Your task to perform on an android device: uninstall "Google Calendar" Image 0: 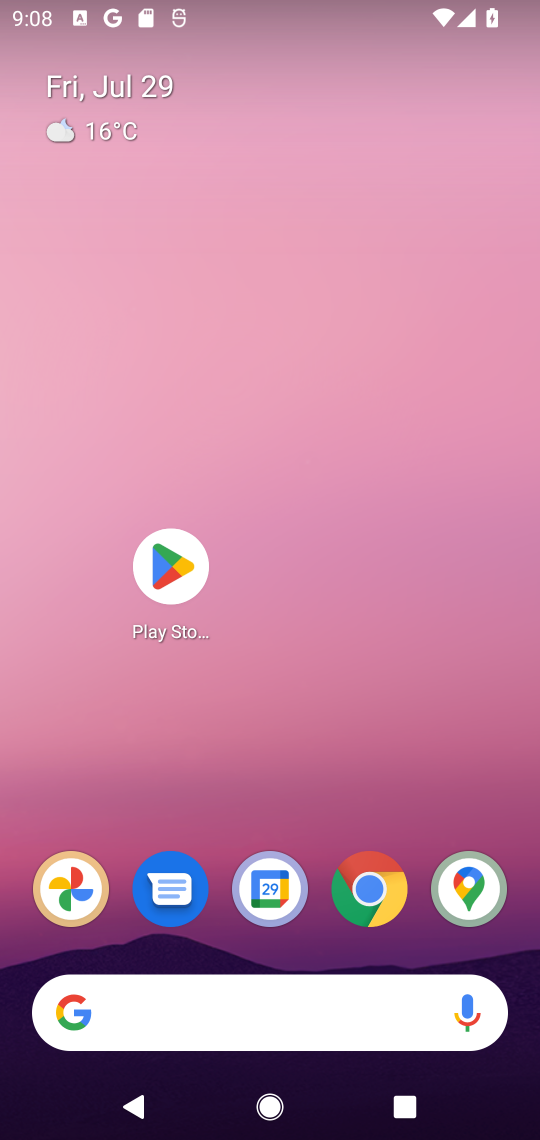
Step 0: click (168, 558)
Your task to perform on an android device: uninstall "Google Calendar" Image 1: 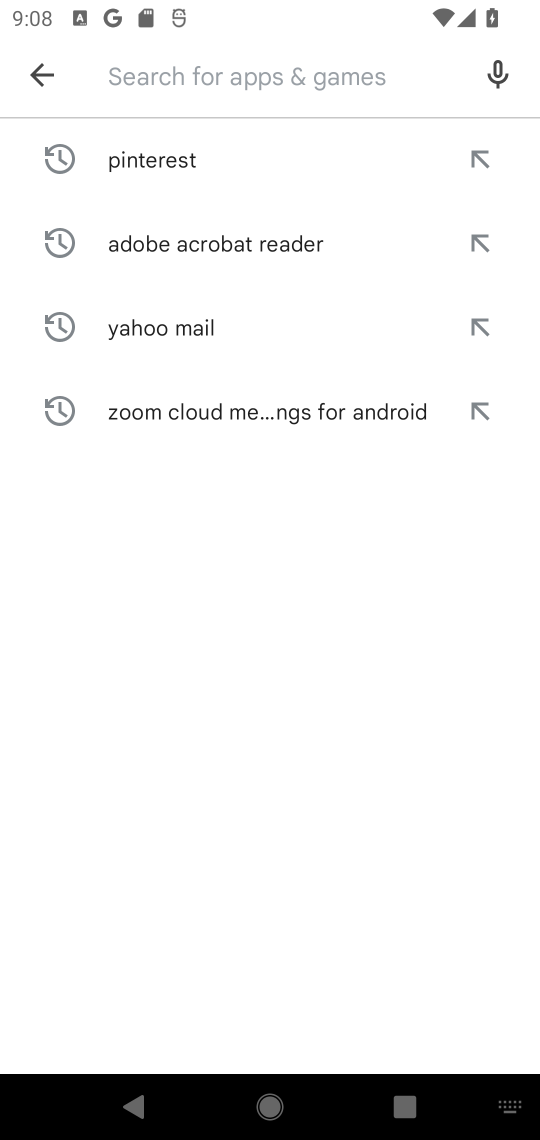
Step 1: type "Google Calendar"
Your task to perform on an android device: uninstall "Google Calendar" Image 2: 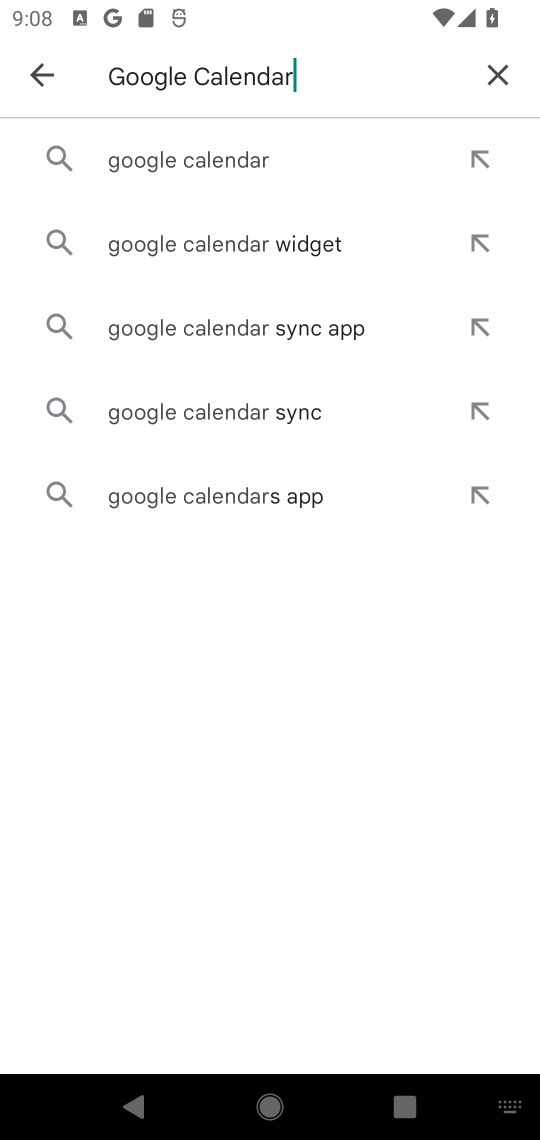
Step 2: click (174, 158)
Your task to perform on an android device: uninstall "Google Calendar" Image 3: 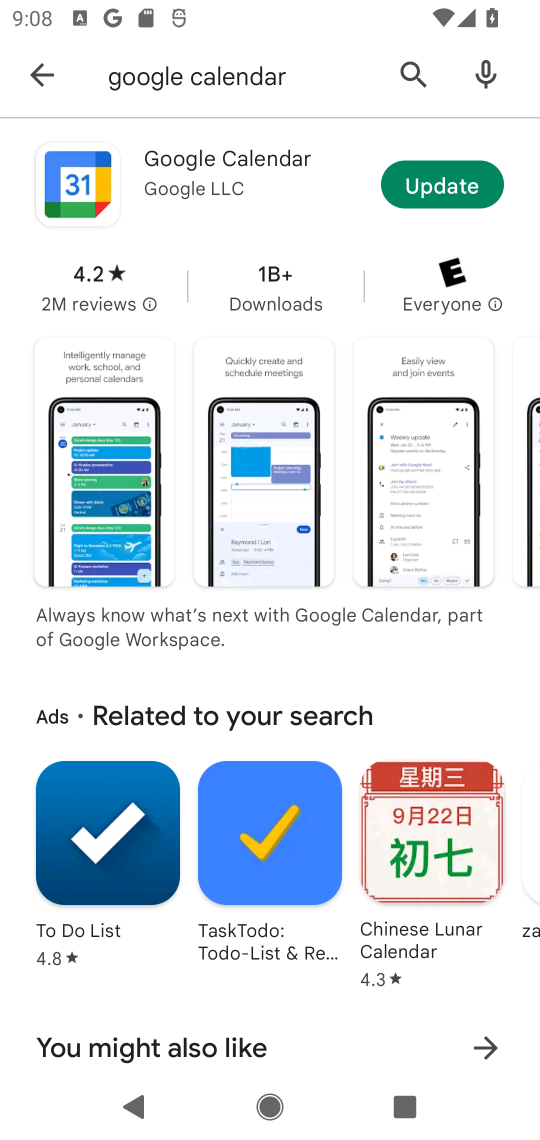
Step 3: click (97, 160)
Your task to perform on an android device: uninstall "Google Calendar" Image 4: 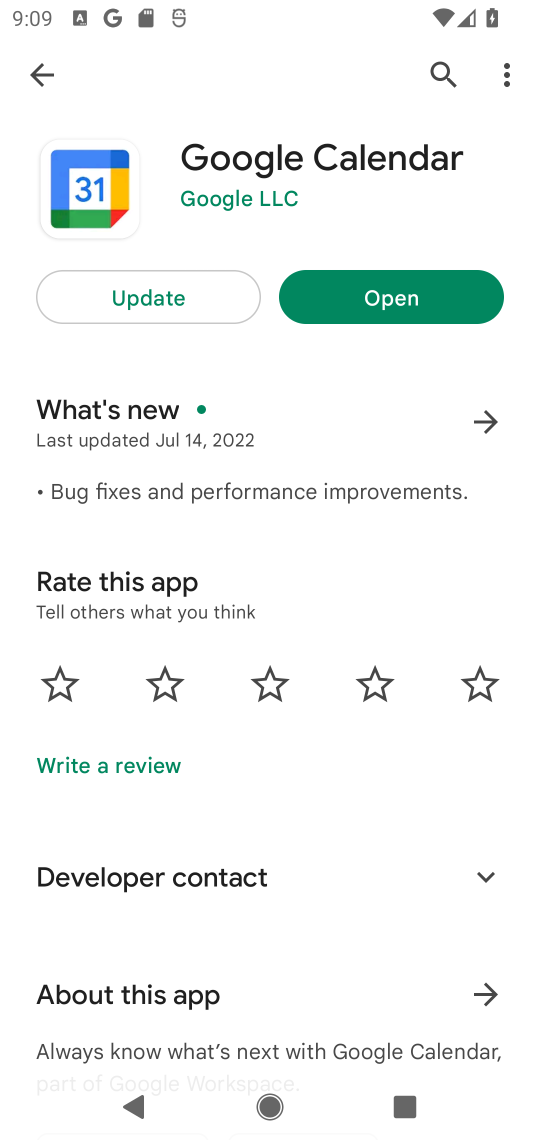
Step 4: task complete